Your task to perform on an android device: Open Wikipedia Image 0: 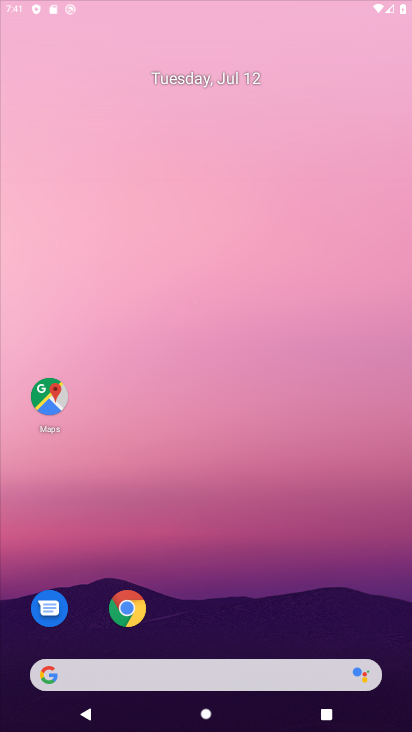
Step 0: drag from (175, 642) to (208, 278)
Your task to perform on an android device: Open Wikipedia Image 1: 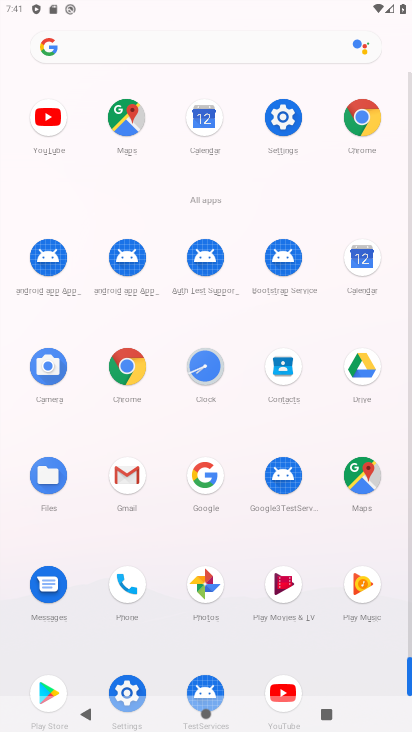
Step 1: click (359, 125)
Your task to perform on an android device: Open Wikipedia Image 2: 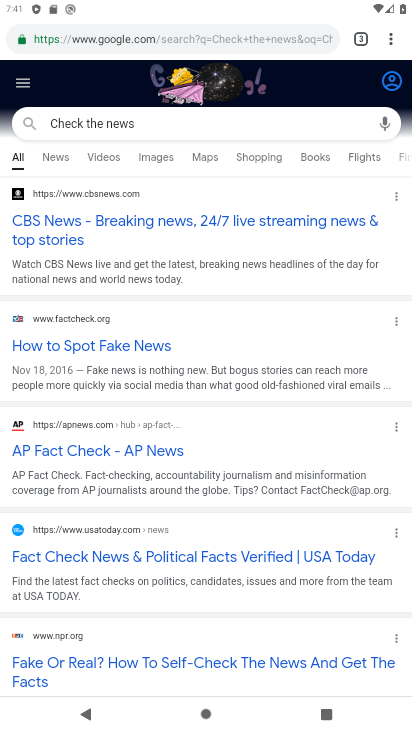
Step 2: click (396, 24)
Your task to perform on an android device: Open Wikipedia Image 3: 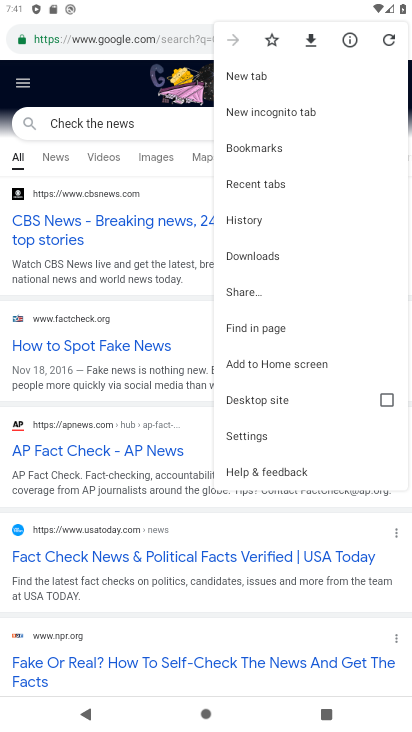
Step 3: click (257, 66)
Your task to perform on an android device: Open Wikipedia Image 4: 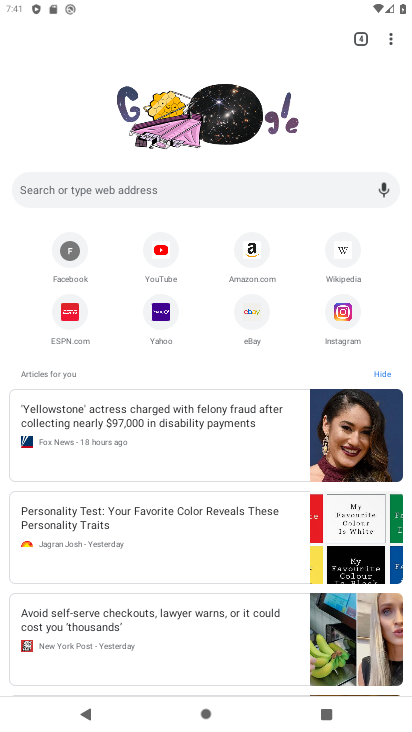
Step 4: click (335, 239)
Your task to perform on an android device: Open Wikipedia Image 5: 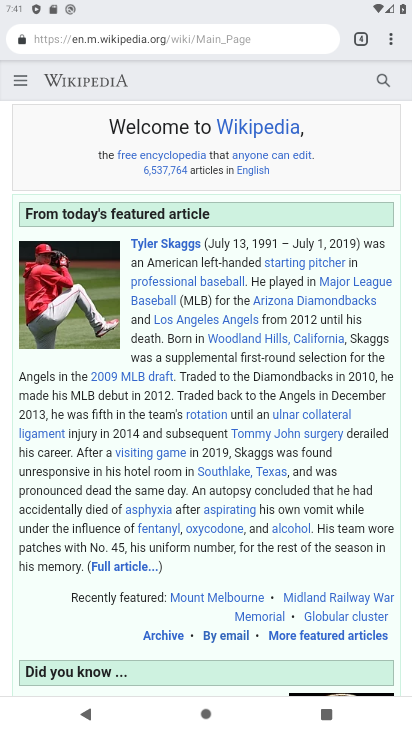
Step 5: task complete